Your task to perform on an android device: Open the Play Movies app and select the watchlist tab. Image 0: 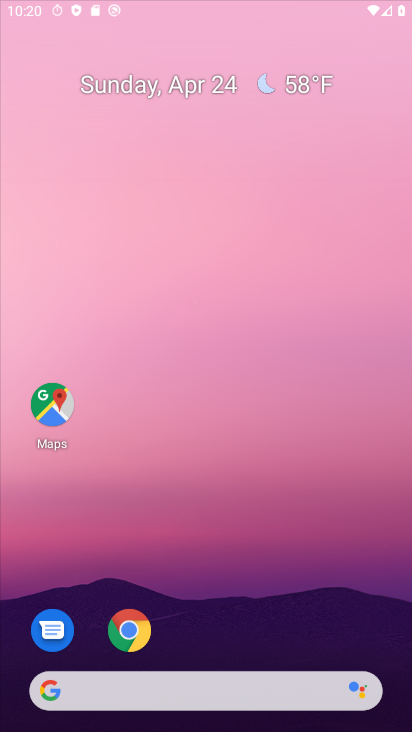
Step 0: click (316, 201)
Your task to perform on an android device: Open the Play Movies app and select the watchlist tab. Image 1: 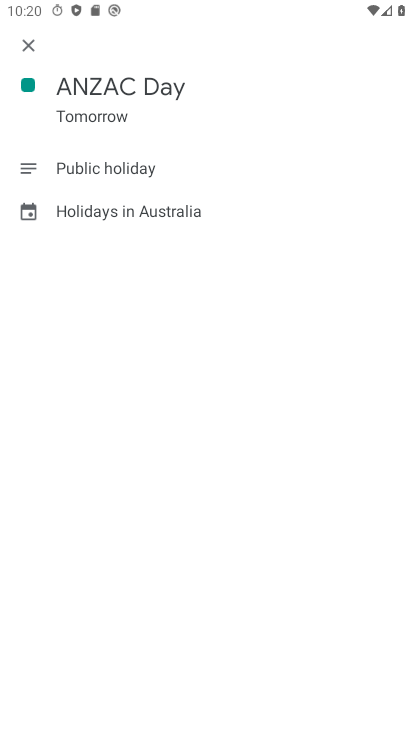
Step 1: press home button
Your task to perform on an android device: Open the Play Movies app and select the watchlist tab. Image 2: 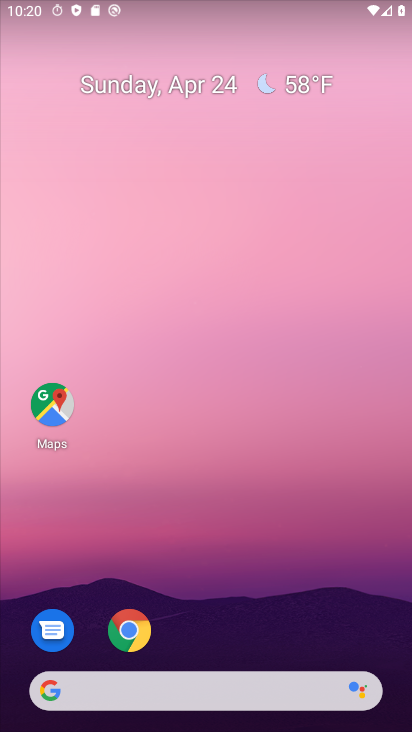
Step 2: drag from (232, 627) to (276, 352)
Your task to perform on an android device: Open the Play Movies app and select the watchlist tab. Image 3: 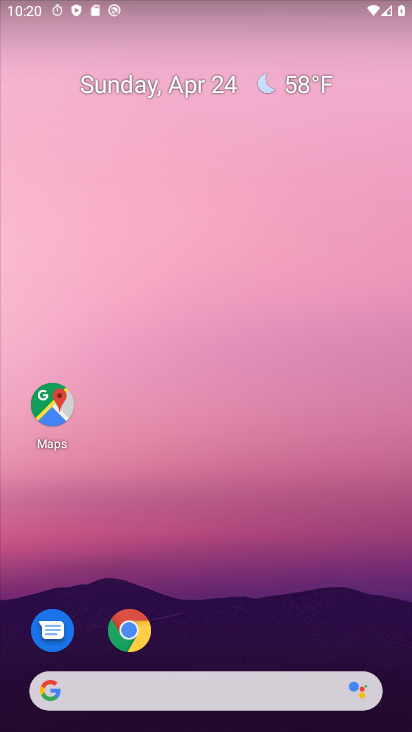
Step 3: drag from (276, 695) to (331, 196)
Your task to perform on an android device: Open the Play Movies app and select the watchlist tab. Image 4: 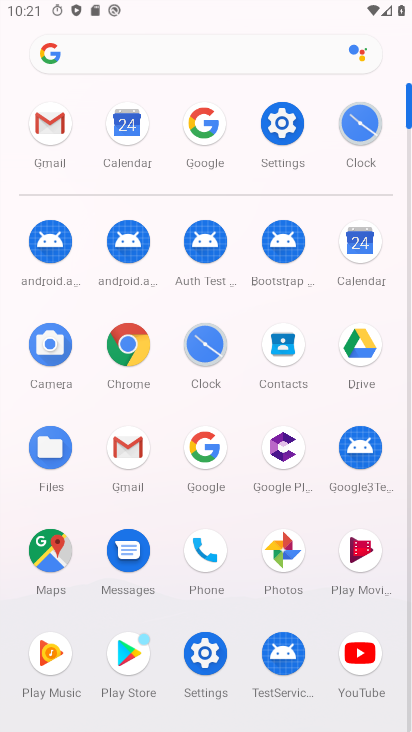
Step 4: click (367, 567)
Your task to perform on an android device: Open the Play Movies app and select the watchlist tab. Image 5: 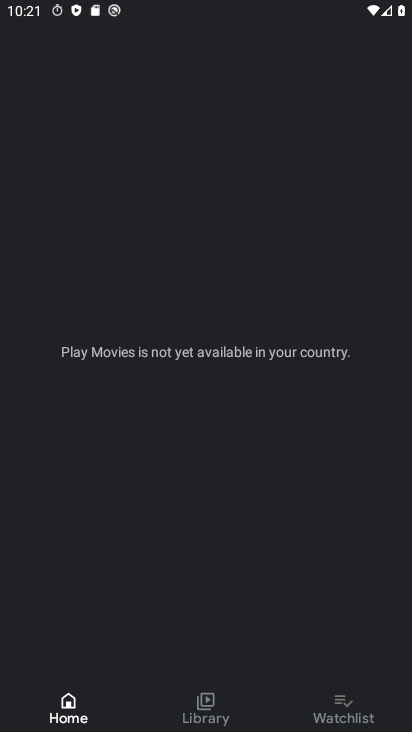
Step 5: click (340, 719)
Your task to perform on an android device: Open the Play Movies app and select the watchlist tab. Image 6: 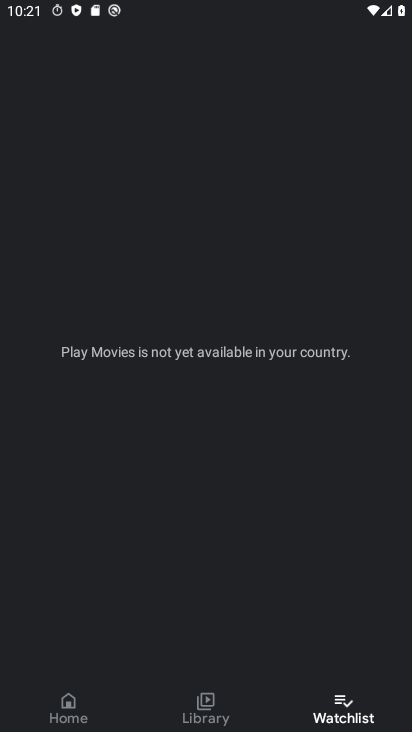
Step 6: task complete